Your task to perform on an android device: change the clock display to analog Image 0: 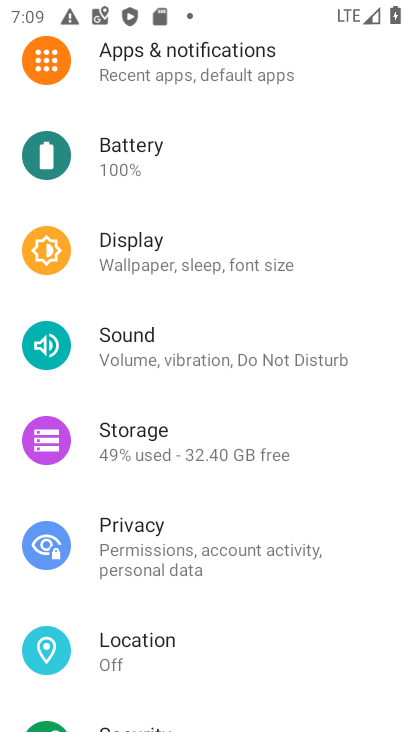
Step 0: press home button
Your task to perform on an android device: change the clock display to analog Image 1: 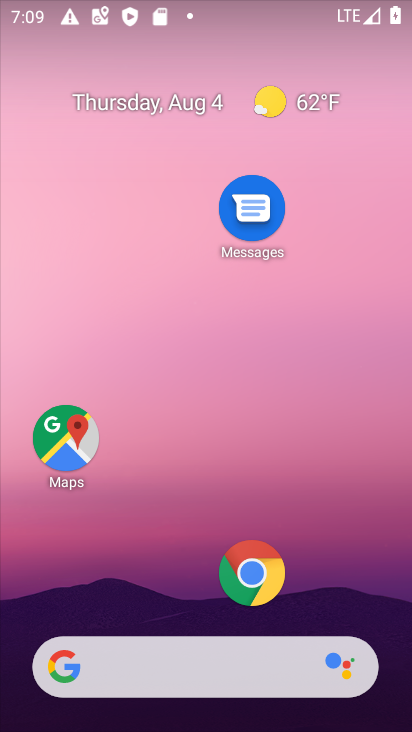
Step 1: drag from (185, 621) to (214, 10)
Your task to perform on an android device: change the clock display to analog Image 2: 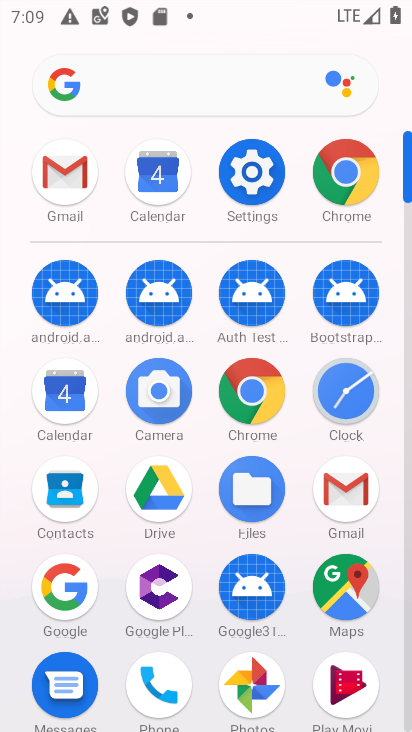
Step 2: click (356, 398)
Your task to perform on an android device: change the clock display to analog Image 3: 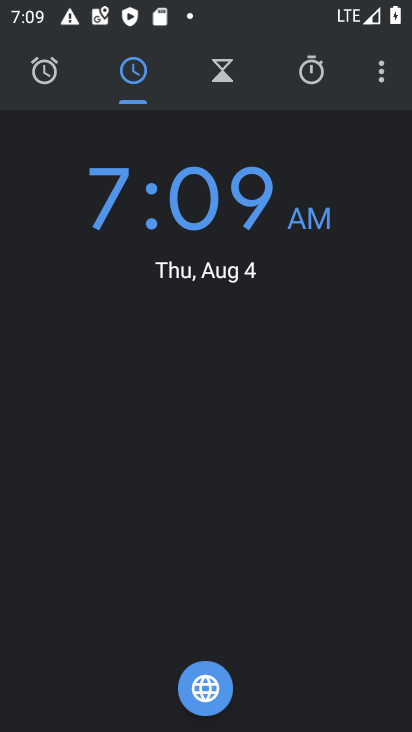
Step 3: click (379, 68)
Your task to perform on an android device: change the clock display to analog Image 4: 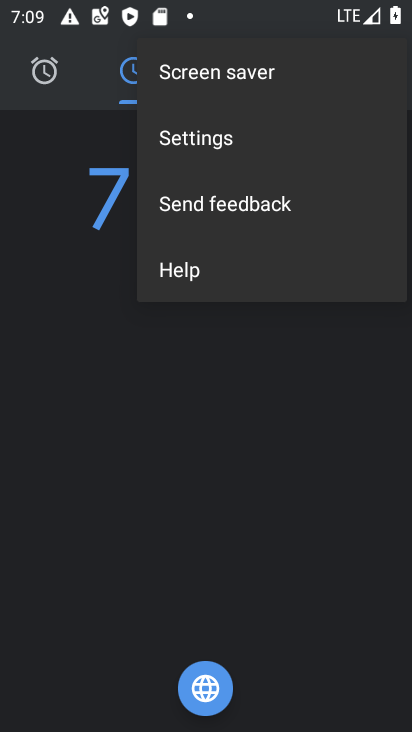
Step 4: click (184, 136)
Your task to perform on an android device: change the clock display to analog Image 5: 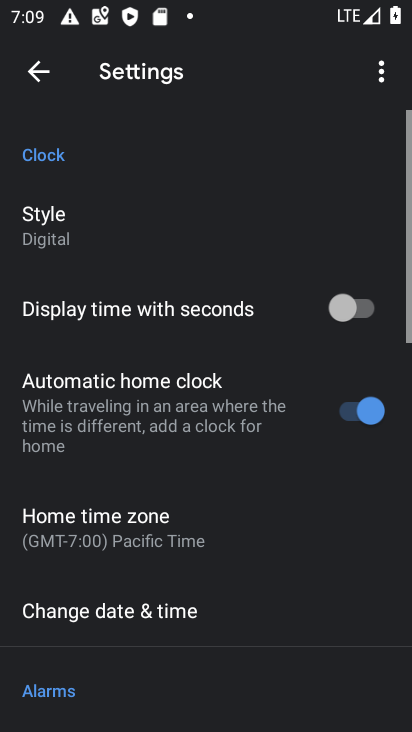
Step 5: click (40, 235)
Your task to perform on an android device: change the clock display to analog Image 6: 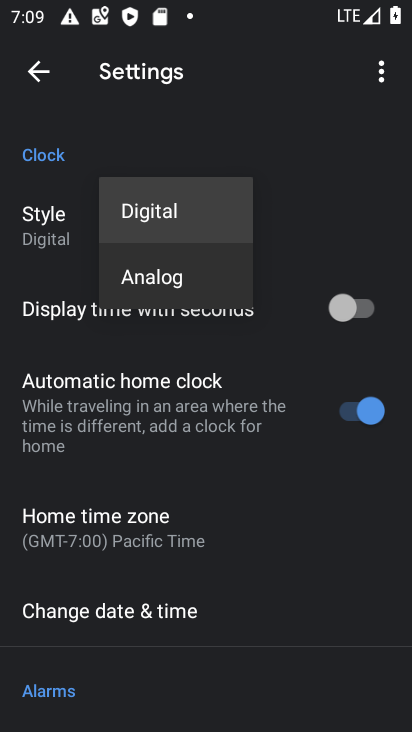
Step 6: click (147, 275)
Your task to perform on an android device: change the clock display to analog Image 7: 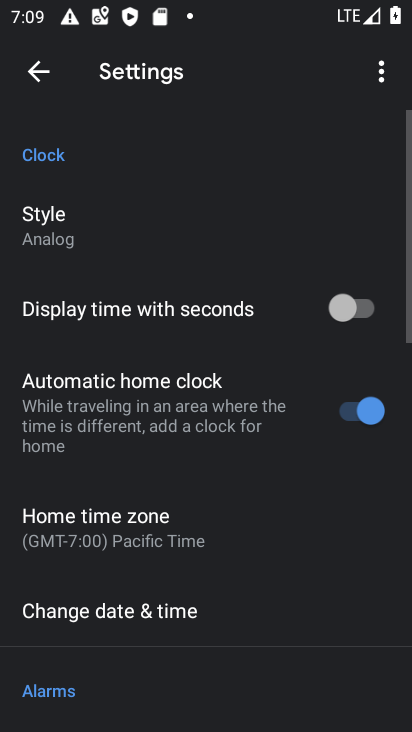
Step 7: task complete